Your task to perform on an android device: open app "LinkedIn" (install if not already installed) Image 0: 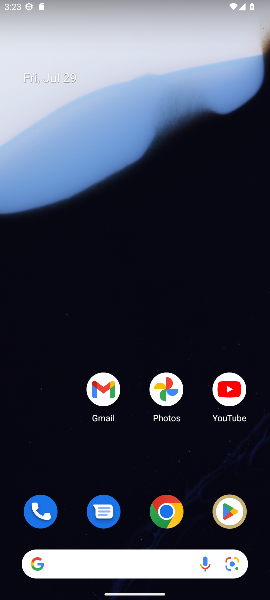
Step 0: drag from (140, 550) to (156, 161)
Your task to perform on an android device: open app "LinkedIn" (install if not already installed) Image 1: 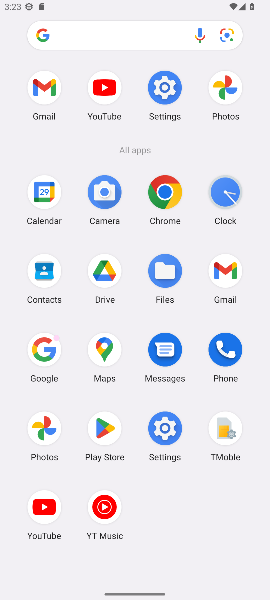
Step 1: click (107, 429)
Your task to perform on an android device: open app "LinkedIn" (install if not already installed) Image 2: 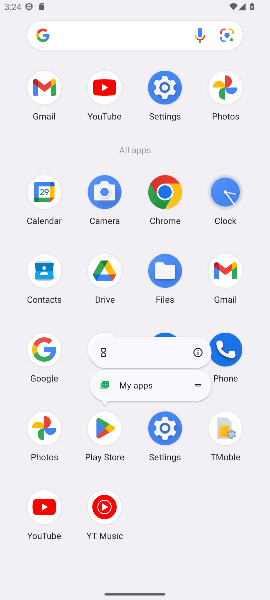
Step 2: click (103, 430)
Your task to perform on an android device: open app "LinkedIn" (install if not already installed) Image 3: 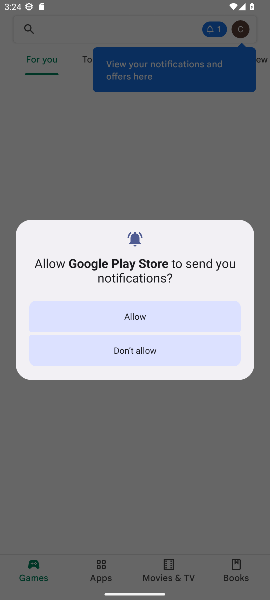
Step 3: click (129, 351)
Your task to perform on an android device: open app "LinkedIn" (install if not already installed) Image 4: 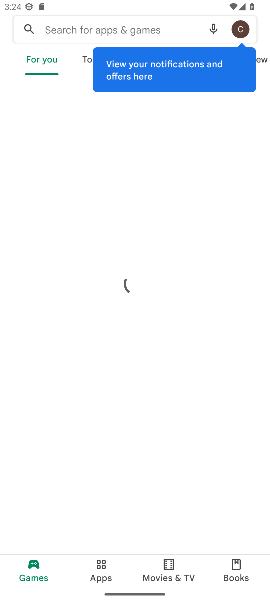
Step 4: click (105, 28)
Your task to perform on an android device: open app "LinkedIn" (install if not already installed) Image 5: 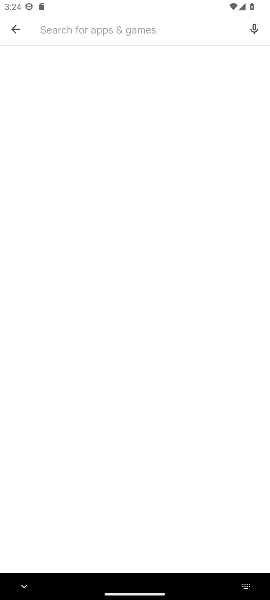
Step 5: type "linkedln"
Your task to perform on an android device: open app "LinkedIn" (install if not already installed) Image 6: 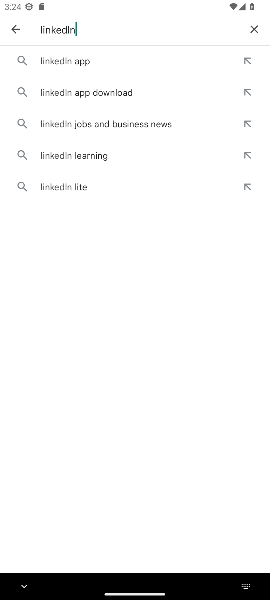
Step 6: click (64, 57)
Your task to perform on an android device: open app "LinkedIn" (install if not already installed) Image 7: 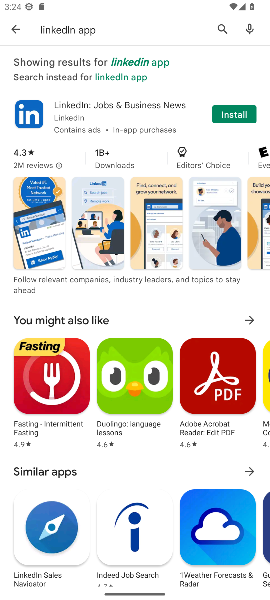
Step 7: click (237, 111)
Your task to perform on an android device: open app "LinkedIn" (install if not already installed) Image 8: 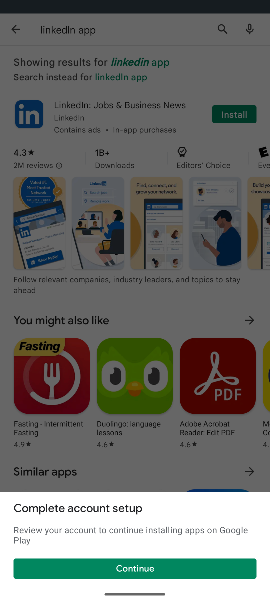
Step 8: click (146, 575)
Your task to perform on an android device: open app "LinkedIn" (install if not already installed) Image 9: 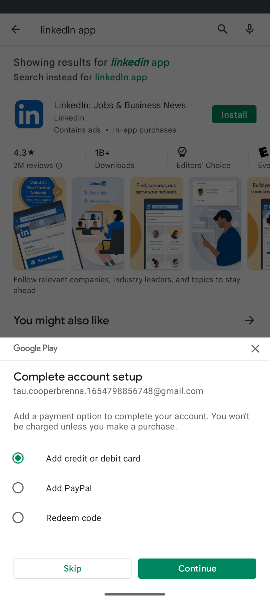
Step 9: click (78, 571)
Your task to perform on an android device: open app "LinkedIn" (install if not already installed) Image 10: 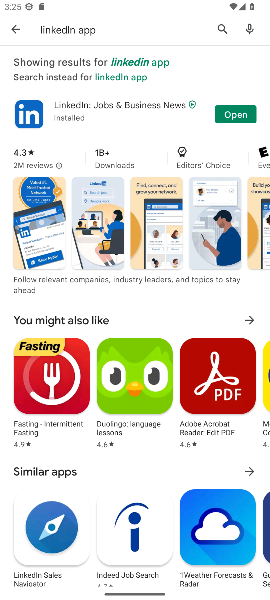
Step 10: click (233, 119)
Your task to perform on an android device: open app "LinkedIn" (install if not already installed) Image 11: 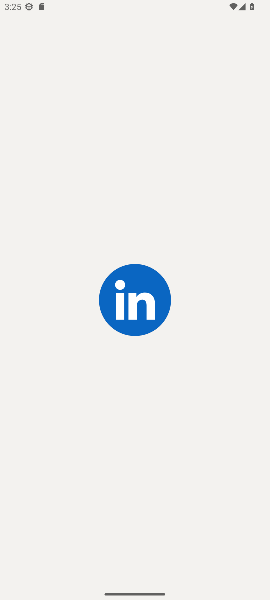
Step 11: task complete